Your task to perform on an android device: turn on bluetooth scan Image 0: 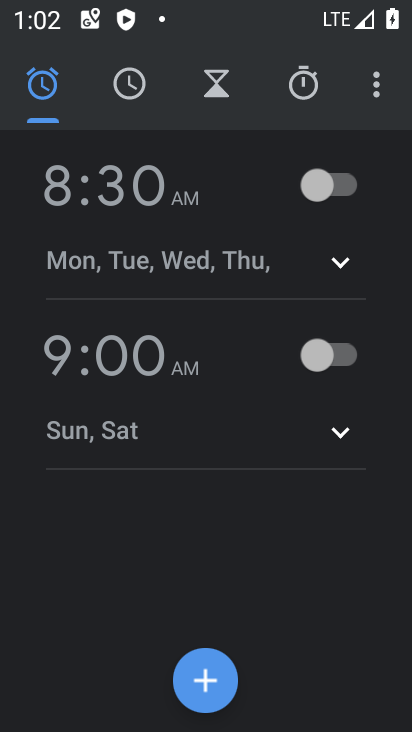
Step 0: press home button
Your task to perform on an android device: turn on bluetooth scan Image 1: 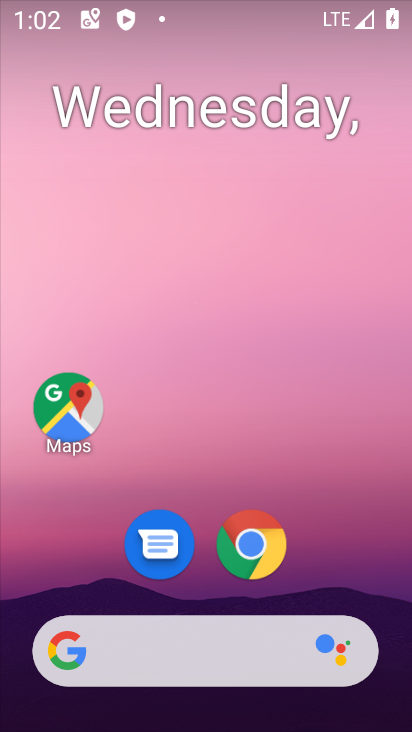
Step 1: drag from (389, 632) to (320, 78)
Your task to perform on an android device: turn on bluetooth scan Image 2: 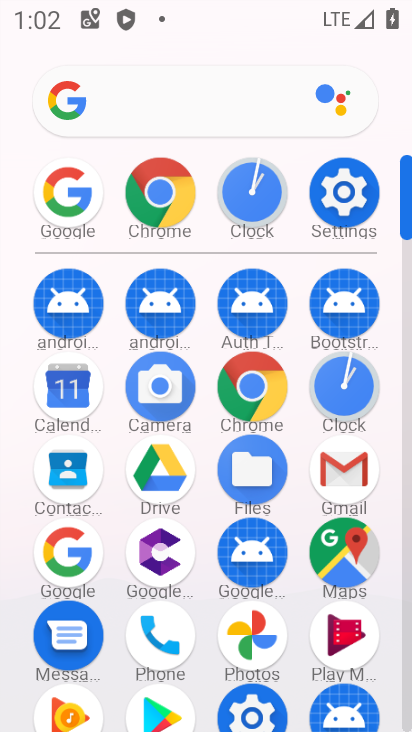
Step 2: click (322, 201)
Your task to perform on an android device: turn on bluetooth scan Image 3: 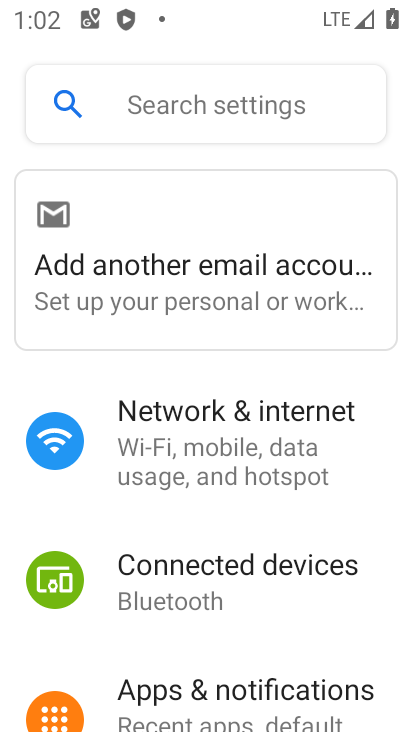
Step 3: drag from (181, 697) to (168, 155)
Your task to perform on an android device: turn on bluetooth scan Image 4: 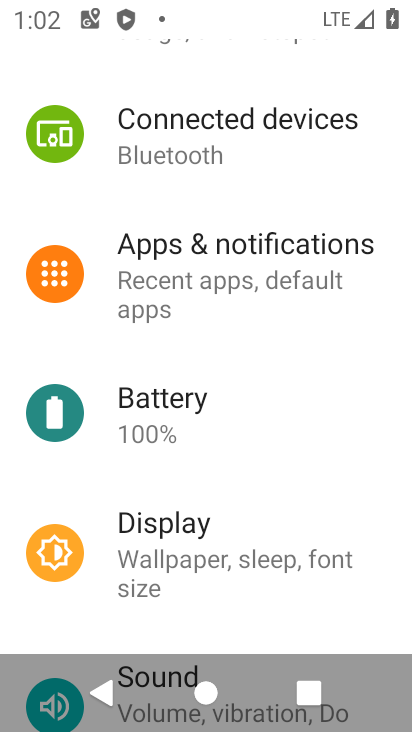
Step 4: drag from (204, 553) to (209, 160)
Your task to perform on an android device: turn on bluetooth scan Image 5: 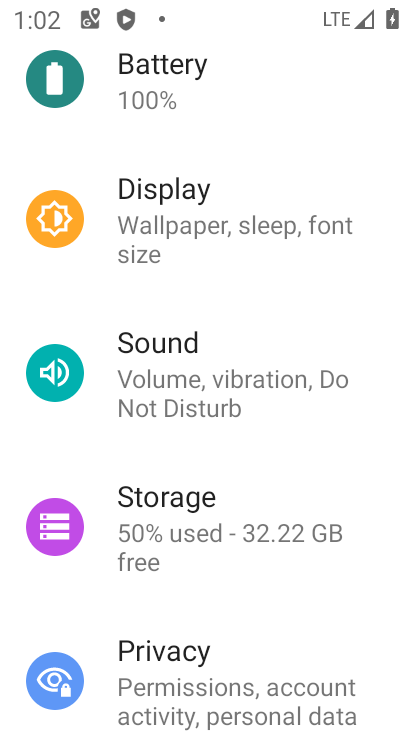
Step 5: drag from (190, 696) to (246, 336)
Your task to perform on an android device: turn on bluetooth scan Image 6: 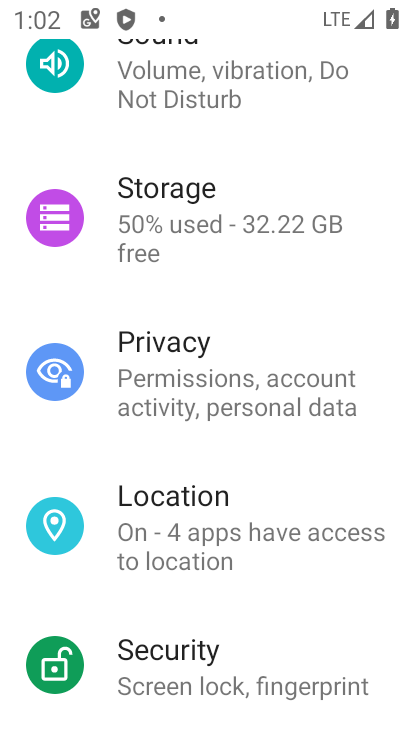
Step 6: drag from (191, 211) to (211, 672)
Your task to perform on an android device: turn on bluetooth scan Image 7: 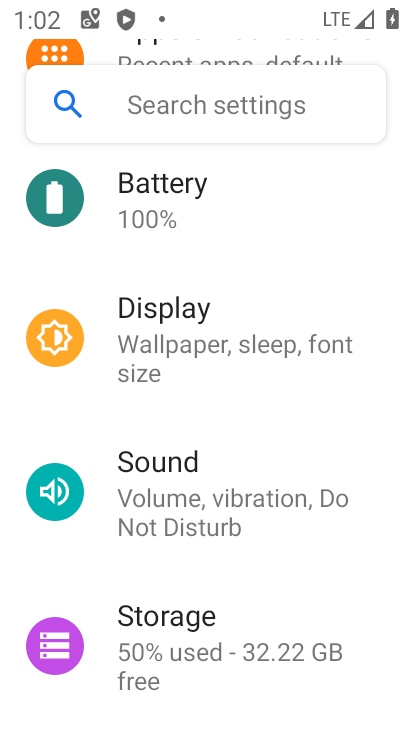
Step 7: drag from (191, 230) to (169, 627)
Your task to perform on an android device: turn on bluetooth scan Image 8: 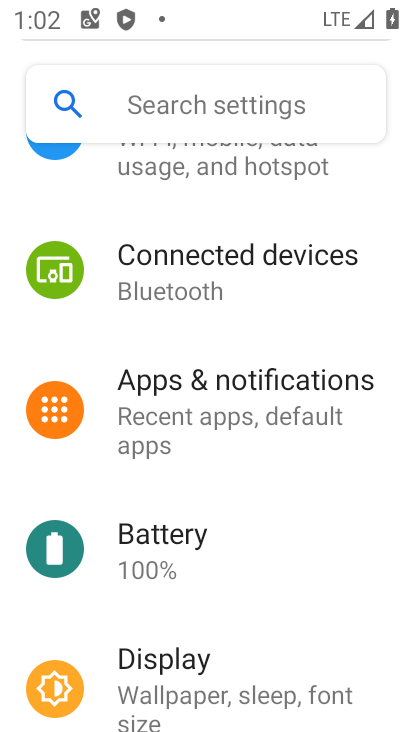
Step 8: drag from (178, 637) to (233, 263)
Your task to perform on an android device: turn on bluetooth scan Image 9: 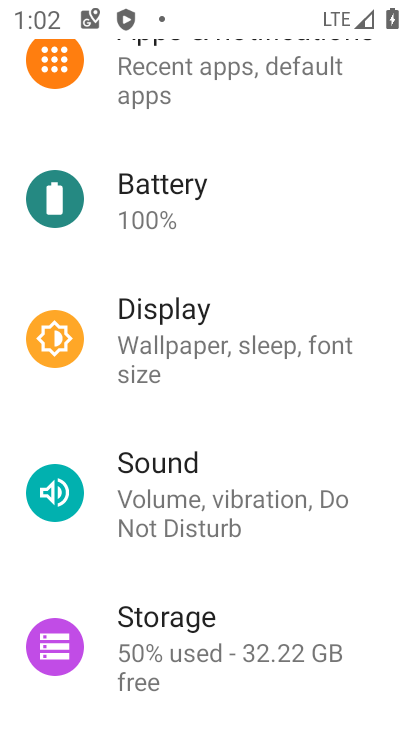
Step 9: drag from (212, 219) to (214, 655)
Your task to perform on an android device: turn on bluetooth scan Image 10: 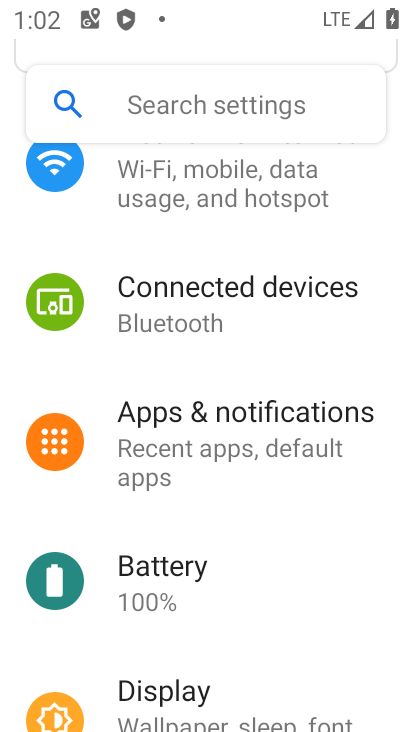
Step 10: drag from (188, 268) to (180, 559)
Your task to perform on an android device: turn on bluetooth scan Image 11: 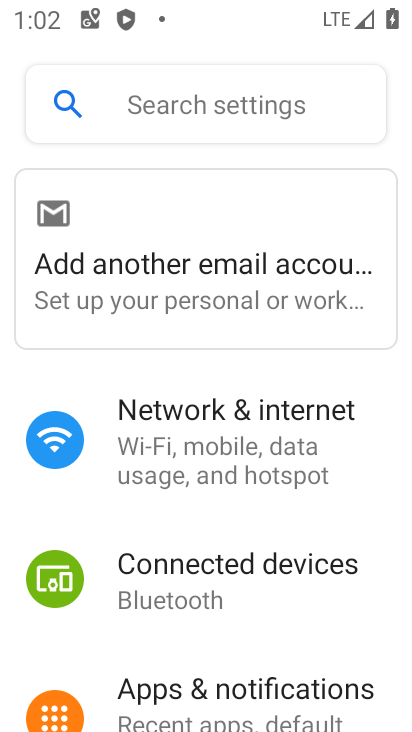
Step 11: drag from (164, 609) to (217, 102)
Your task to perform on an android device: turn on bluetooth scan Image 12: 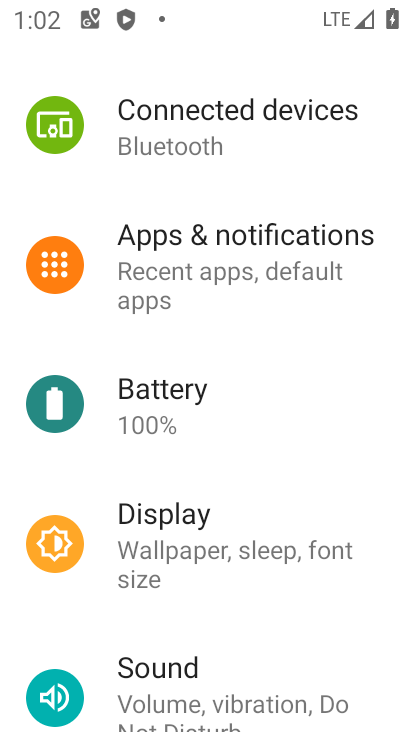
Step 12: drag from (205, 582) to (292, 131)
Your task to perform on an android device: turn on bluetooth scan Image 13: 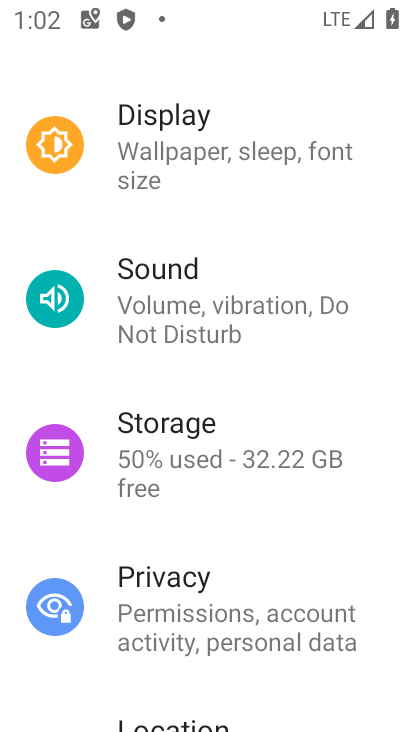
Step 13: drag from (171, 617) to (283, 177)
Your task to perform on an android device: turn on bluetooth scan Image 14: 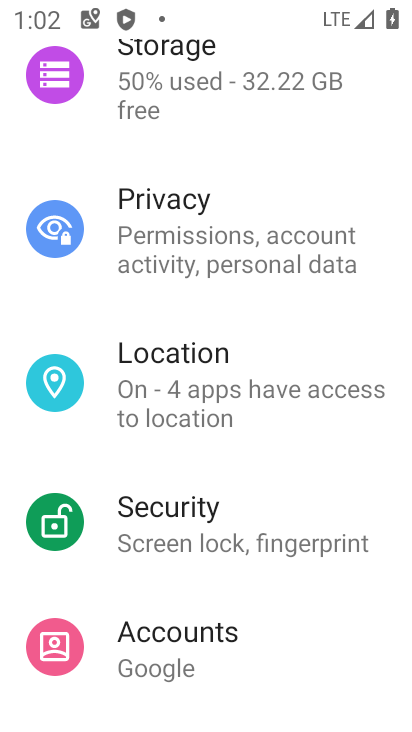
Step 14: click (279, 353)
Your task to perform on an android device: turn on bluetooth scan Image 15: 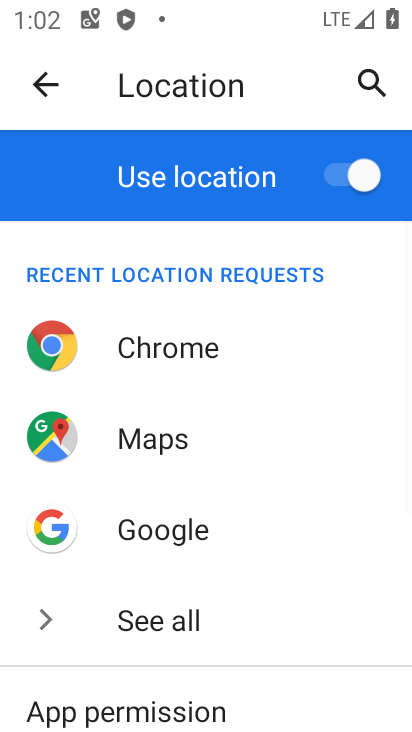
Step 15: drag from (233, 564) to (303, 83)
Your task to perform on an android device: turn on bluetooth scan Image 16: 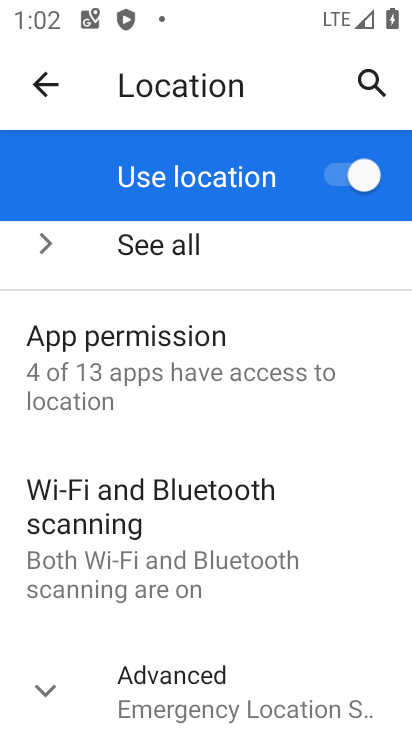
Step 16: click (214, 566)
Your task to perform on an android device: turn on bluetooth scan Image 17: 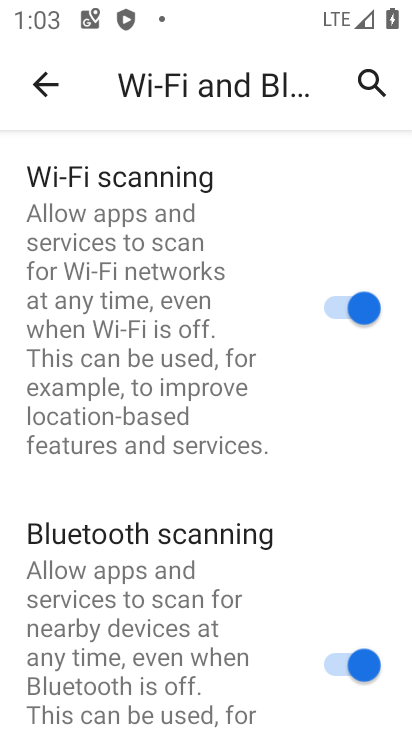
Step 17: task complete